Your task to perform on an android device: What's the weather going to be this weekend? Image 0: 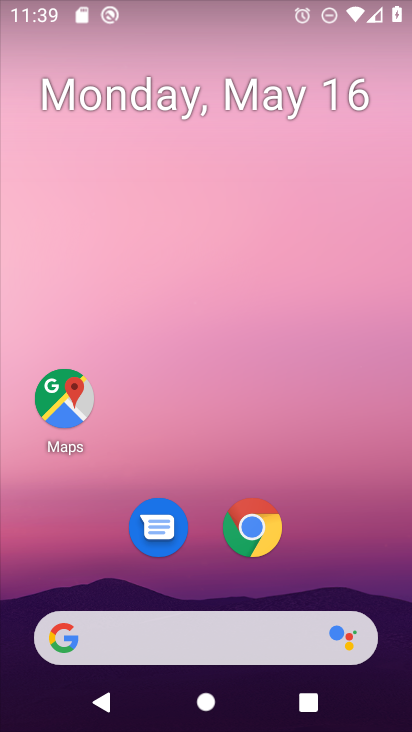
Step 0: click (158, 636)
Your task to perform on an android device: What's the weather going to be this weekend? Image 1: 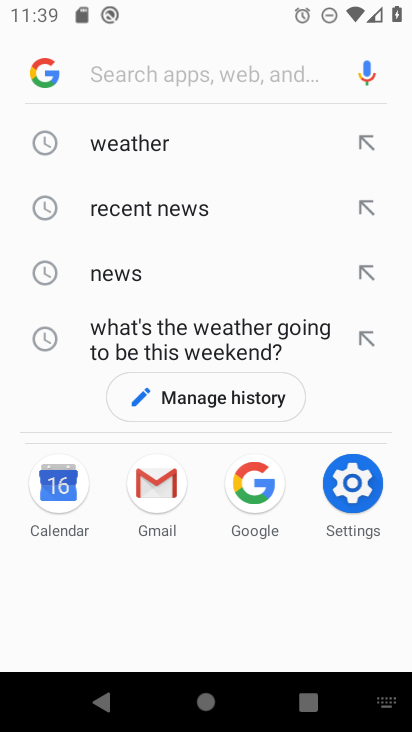
Step 1: click (123, 143)
Your task to perform on an android device: What's the weather going to be this weekend? Image 2: 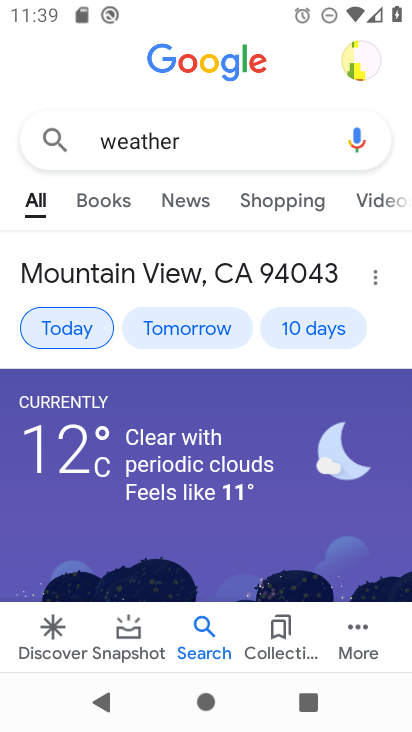
Step 2: click (310, 332)
Your task to perform on an android device: What's the weather going to be this weekend? Image 3: 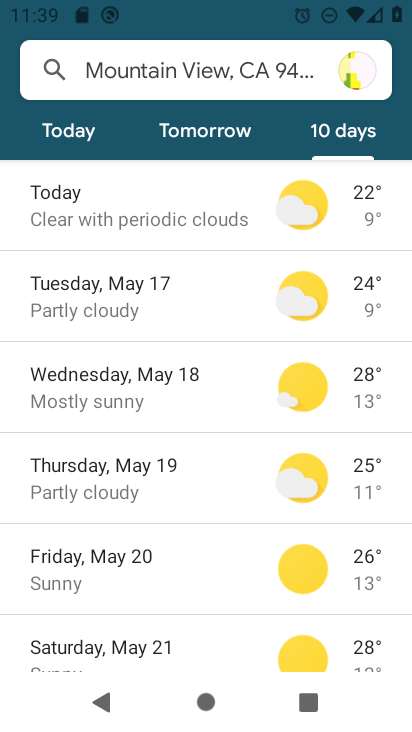
Step 3: task complete